Your task to perform on an android device: Go to wifi settings Image 0: 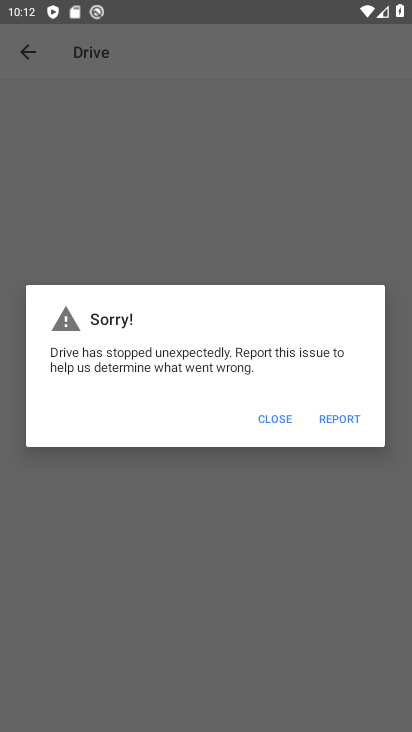
Step 0: press home button
Your task to perform on an android device: Go to wifi settings Image 1: 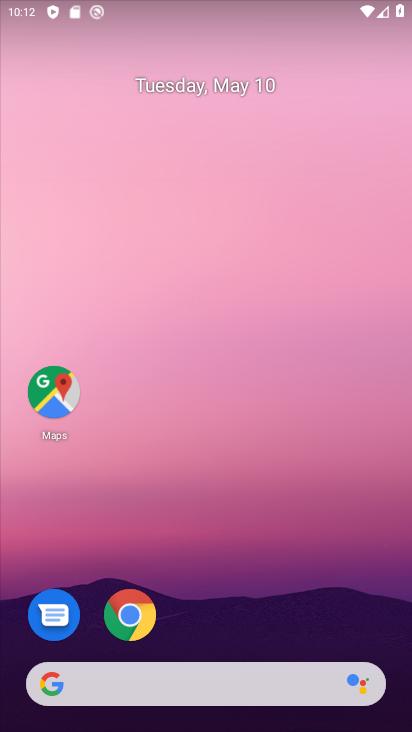
Step 1: drag from (260, 583) to (255, 60)
Your task to perform on an android device: Go to wifi settings Image 2: 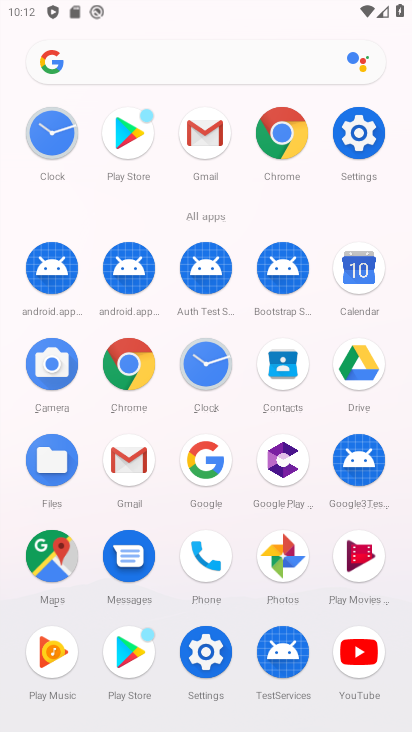
Step 2: click (360, 133)
Your task to perform on an android device: Go to wifi settings Image 3: 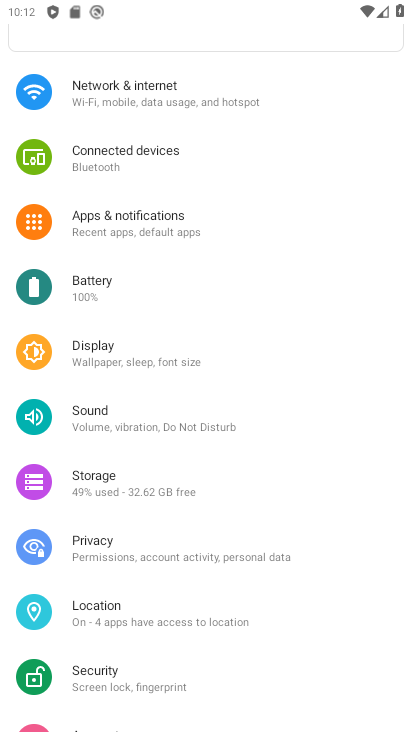
Step 3: click (163, 92)
Your task to perform on an android device: Go to wifi settings Image 4: 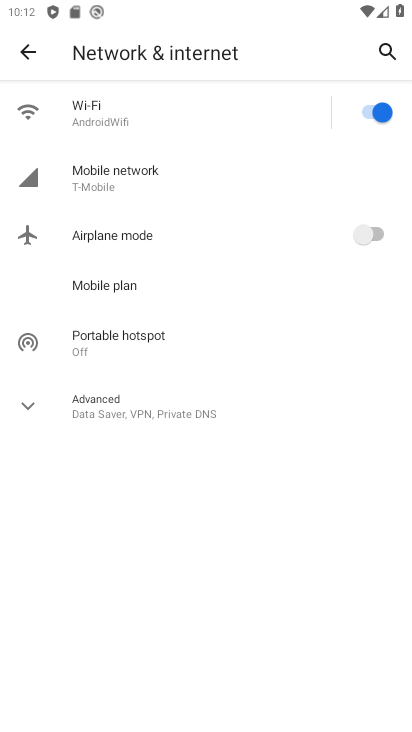
Step 4: click (81, 124)
Your task to perform on an android device: Go to wifi settings Image 5: 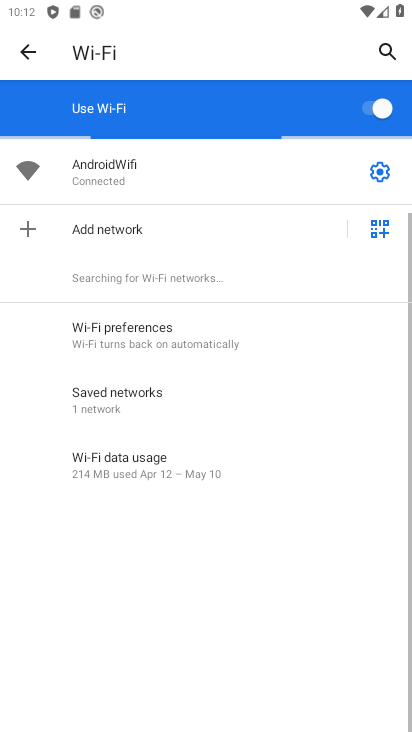
Step 5: click (380, 175)
Your task to perform on an android device: Go to wifi settings Image 6: 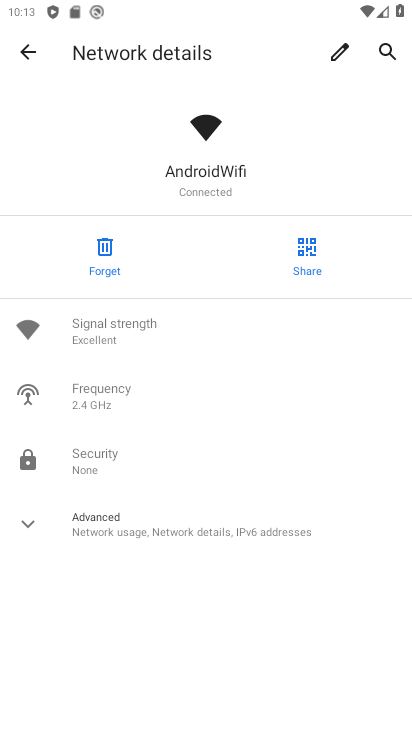
Step 6: task complete